Your task to perform on an android device: Open accessibility settings Image 0: 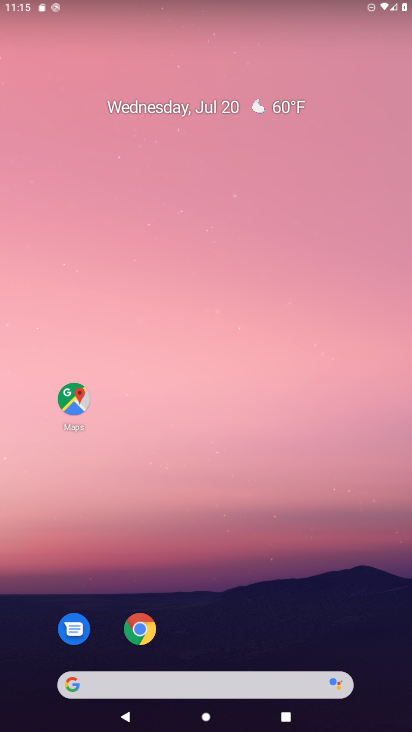
Step 0: drag from (198, 630) to (202, 136)
Your task to perform on an android device: Open accessibility settings Image 1: 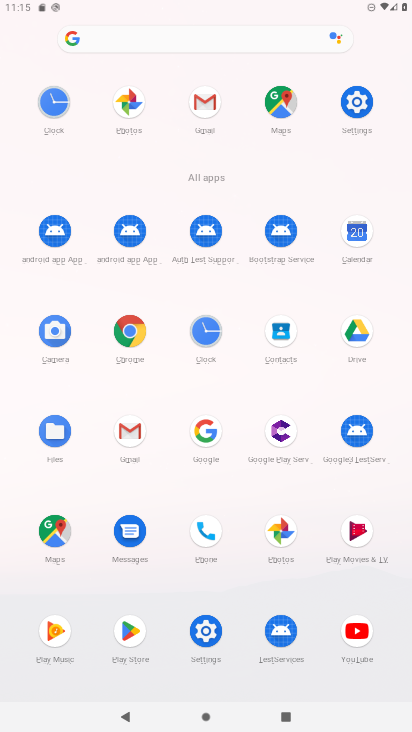
Step 1: click (353, 101)
Your task to perform on an android device: Open accessibility settings Image 2: 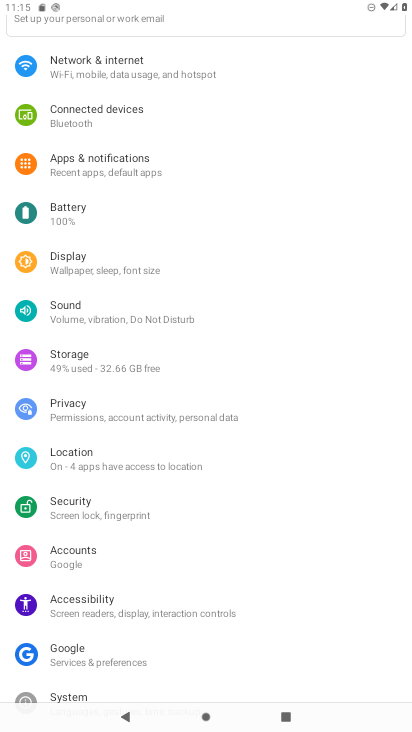
Step 2: click (140, 612)
Your task to perform on an android device: Open accessibility settings Image 3: 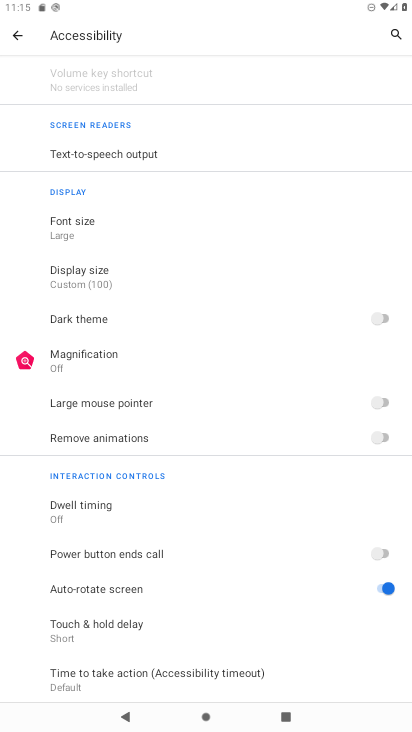
Step 3: task complete